Your task to perform on an android device: What is the recent news? Image 0: 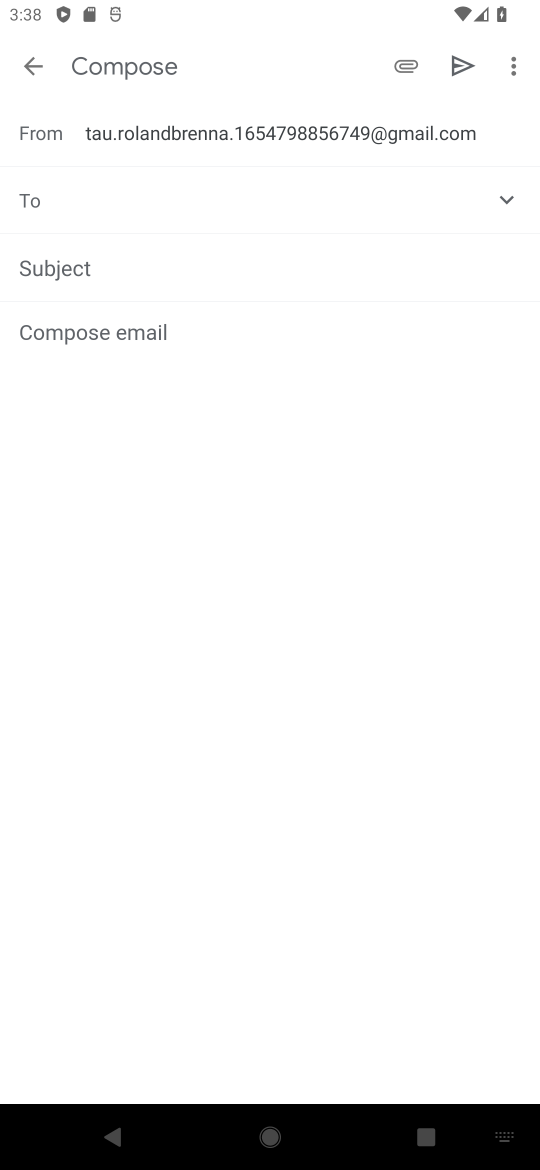
Step 0: press home button
Your task to perform on an android device: What is the recent news? Image 1: 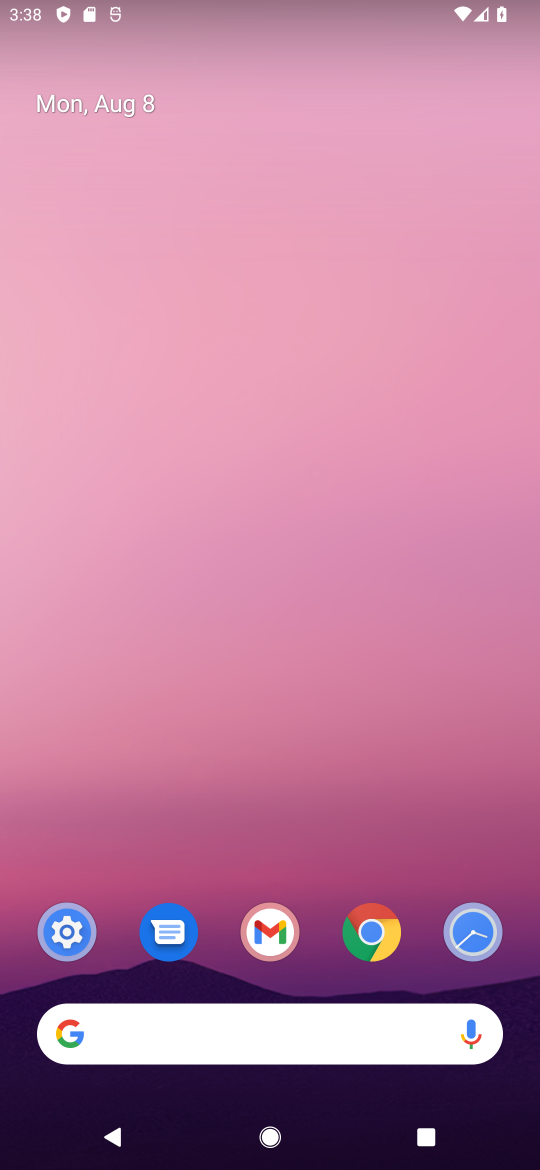
Step 1: click (195, 1048)
Your task to perform on an android device: What is the recent news? Image 2: 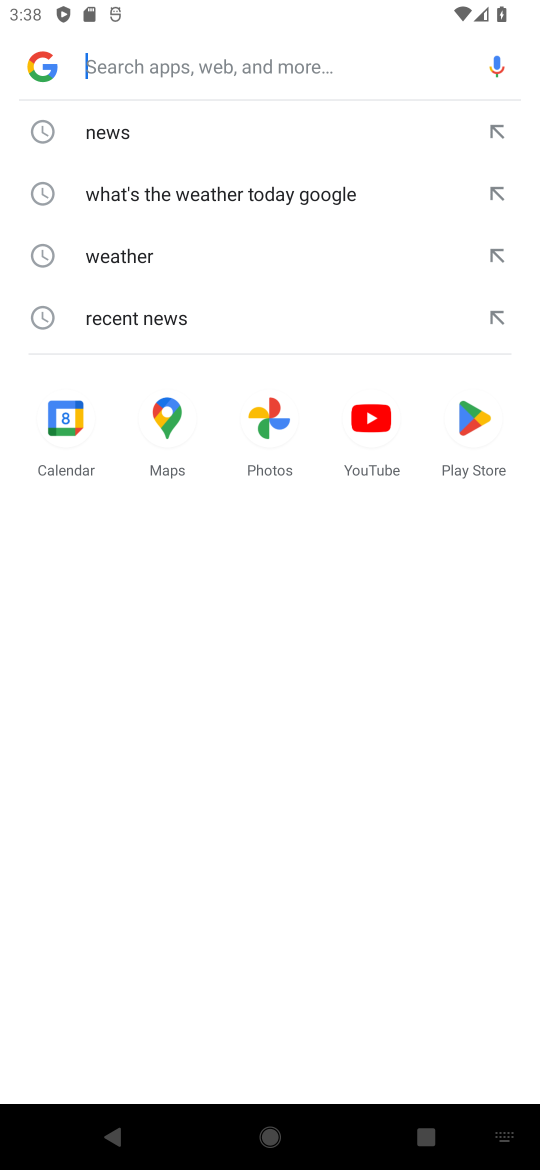
Step 2: click (199, 324)
Your task to perform on an android device: What is the recent news? Image 3: 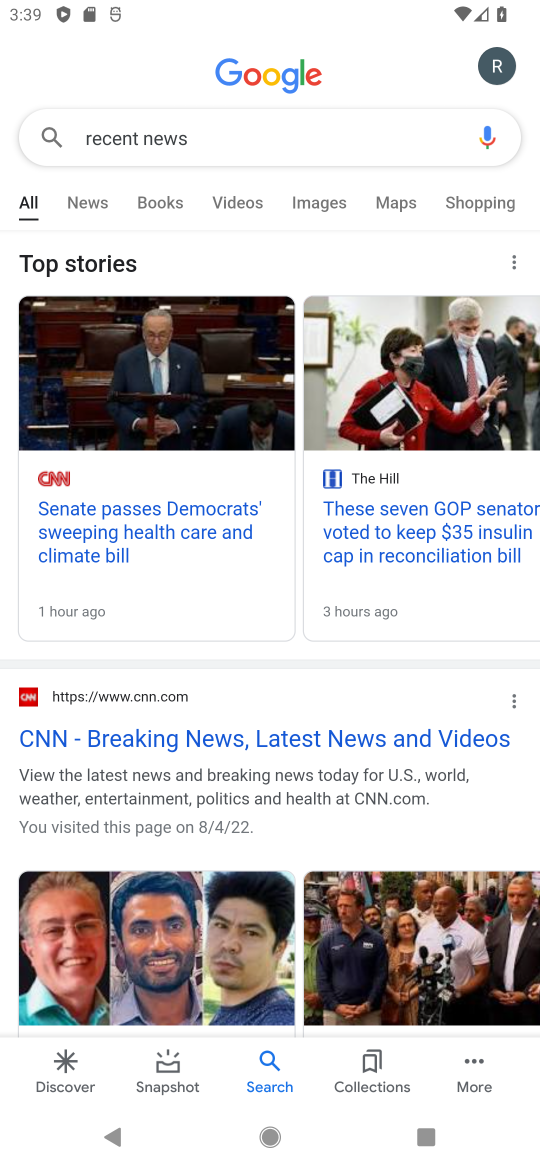
Step 3: task complete